Your task to perform on an android device: toggle translation in the chrome app Image 0: 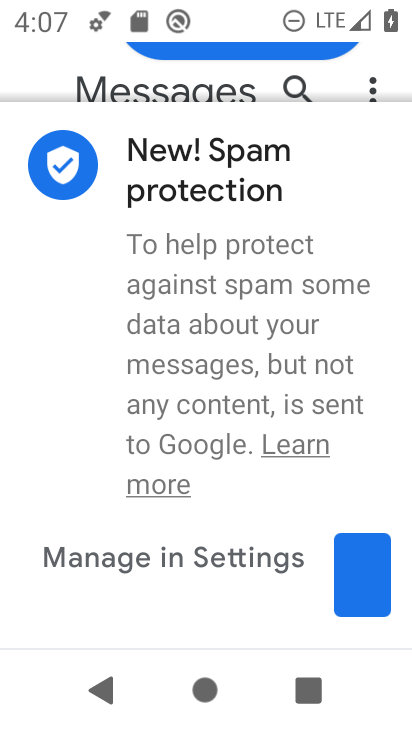
Step 0: press home button
Your task to perform on an android device: toggle translation in the chrome app Image 1: 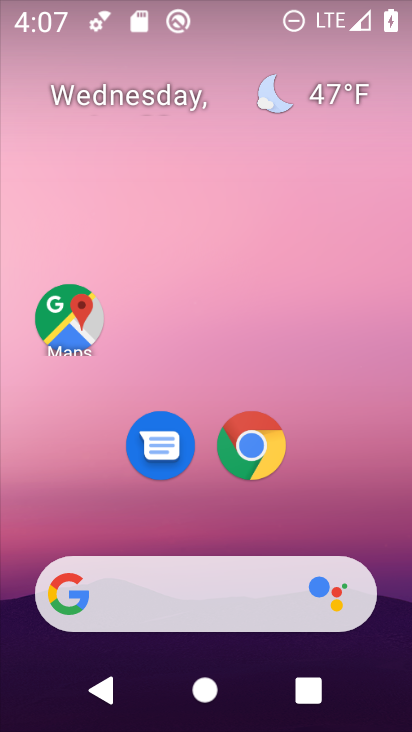
Step 1: click (256, 451)
Your task to perform on an android device: toggle translation in the chrome app Image 2: 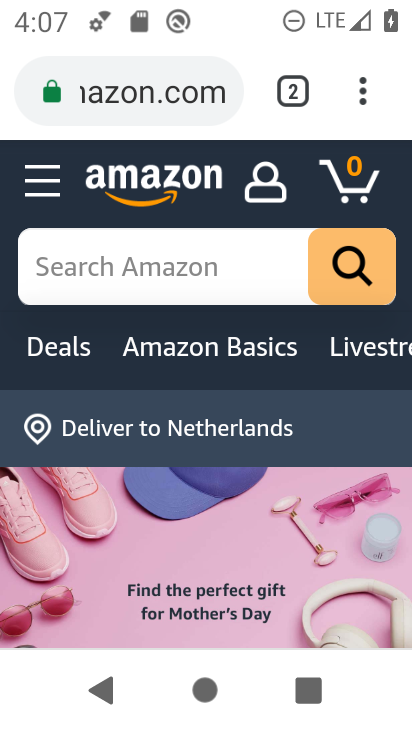
Step 2: click (362, 86)
Your task to perform on an android device: toggle translation in the chrome app Image 3: 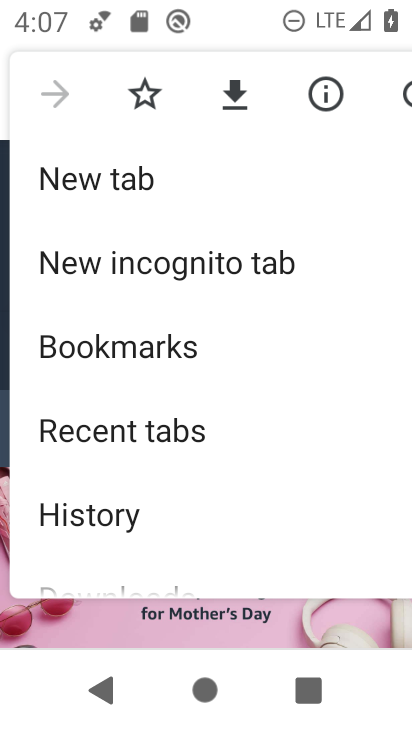
Step 3: drag from (197, 457) to (254, 297)
Your task to perform on an android device: toggle translation in the chrome app Image 4: 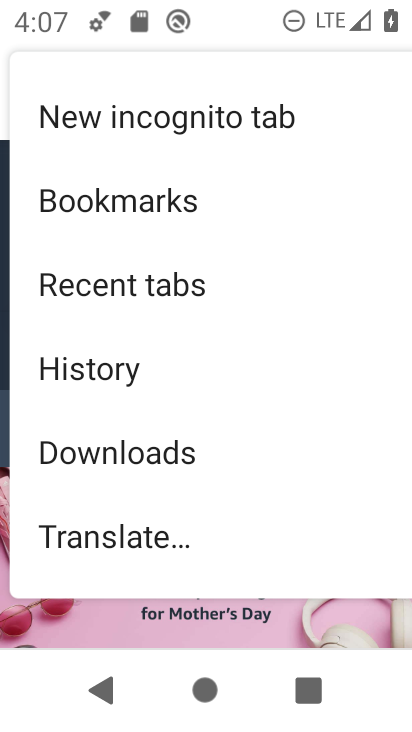
Step 4: drag from (233, 487) to (285, 361)
Your task to perform on an android device: toggle translation in the chrome app Image 5: 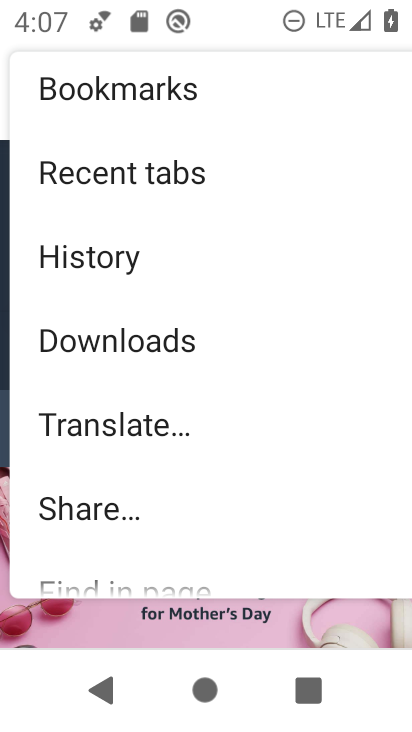
Step 5: drag from (207, 473) to (254, 380)
Your task to perform on an android device: toggle translation in the chrome app Image 6: 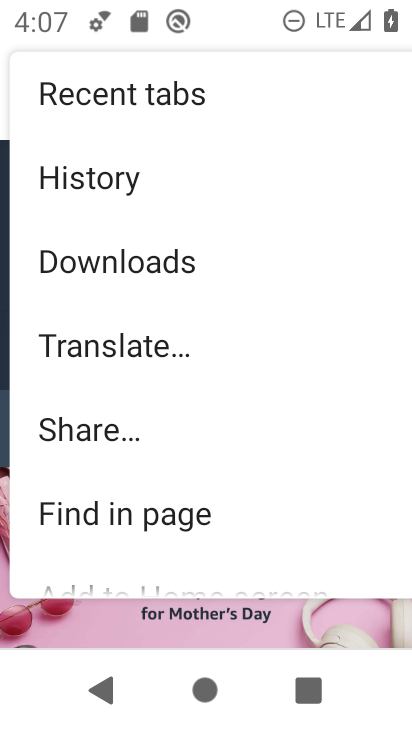
Step 6: drag from (250, 485) to (264, 399)
Your task to perform on an android device: toggle translation in the chrome app Image 7: 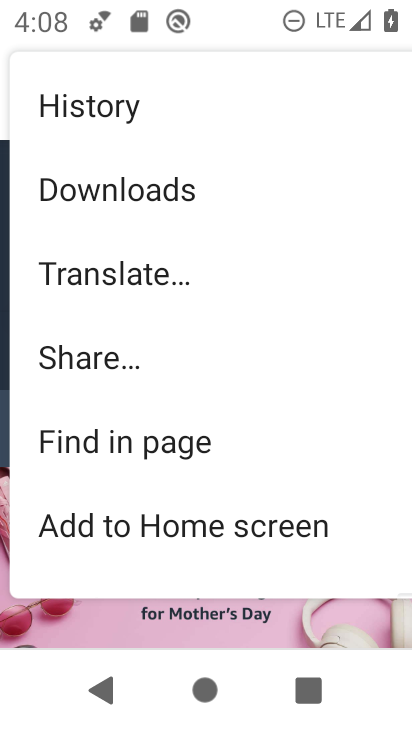
Step 7: drag from (254, 465) to (270, 383)
Your task to perform on an android device: toggle translation in the chrome app Image 8: 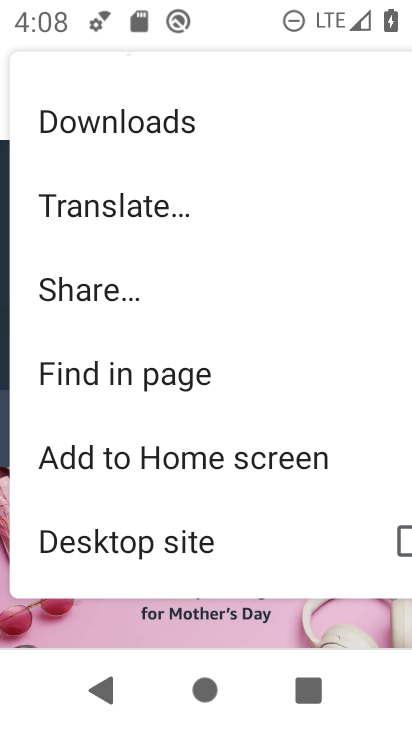
Step 8: drag from (241, 519) to (273, 385)
Your task to perform on an android device: toggle translation in the chrome app Image 9: 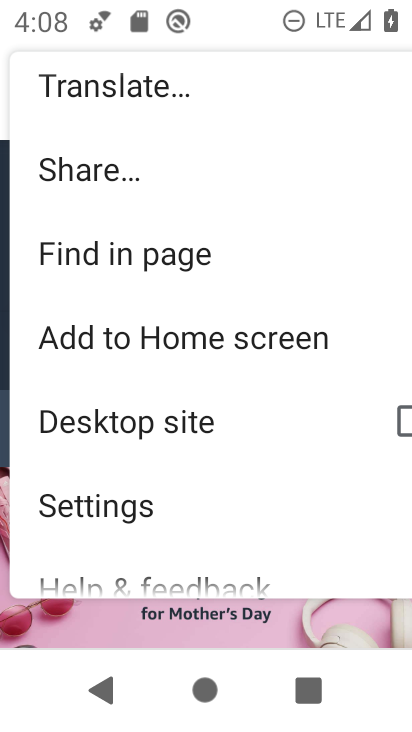
Step 9: drag from (205, 502) to (240, 378)
Your task to perform on an android device: toggle translation in the chrome app Image 10: 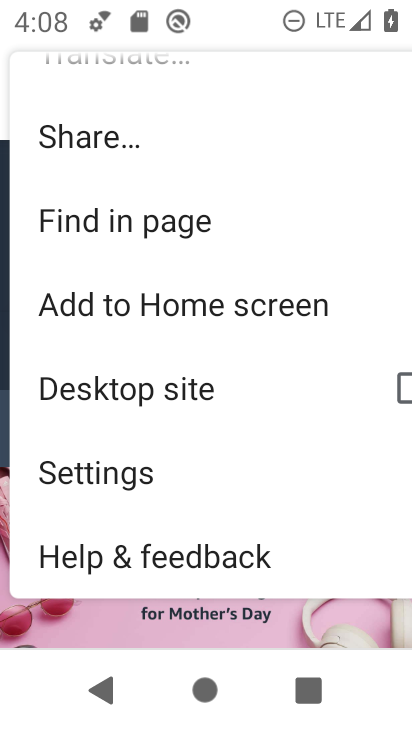
Step 10: click (118, 471)
Your task to perform on an android device: toggle translation in the chrome app Image 11: 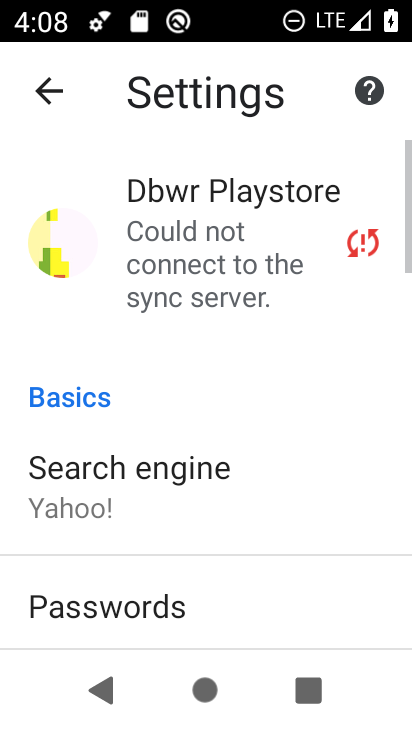
Step 11: drag from (203, 586) to (243, 447)
Your task to perform on an android device: toggle translation in the chrome app Image 12: 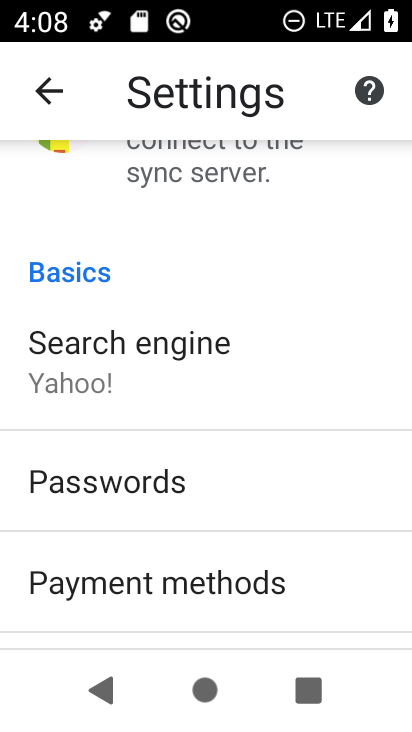
Step 12: drag from (239, 548) to (263, 429)
Your task to perform on an android device: toggle translation in the chrome app Image 13: 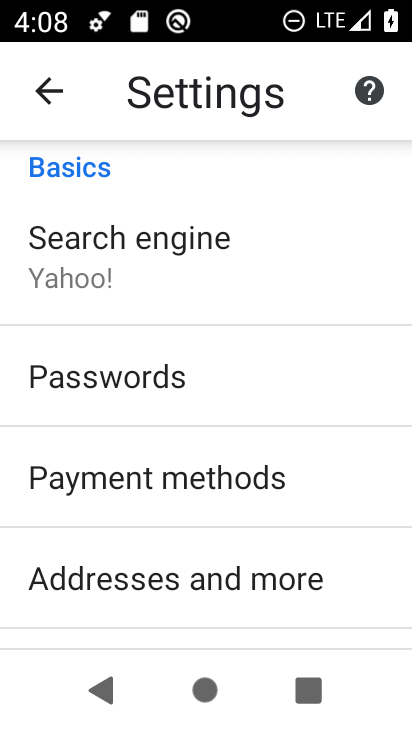
Step 13: click (263, 443)
Your task to perform on an android device: toggle translation in the chrome app Image 14: 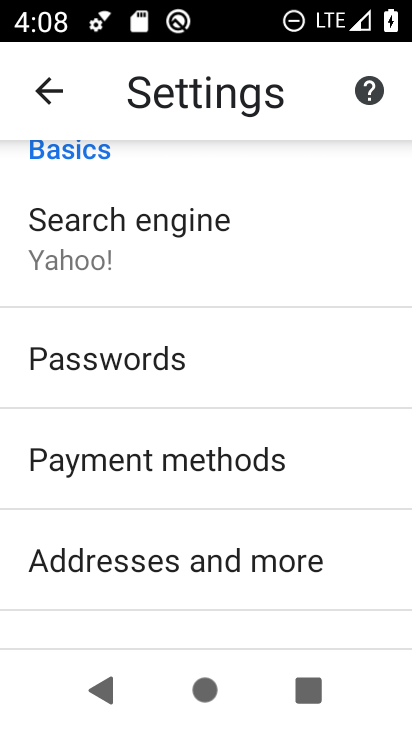
Step 14: drag from (218, 580) to (275, 440)
Your task to perform on an android device: toggle translation in the chrome app Image 15: 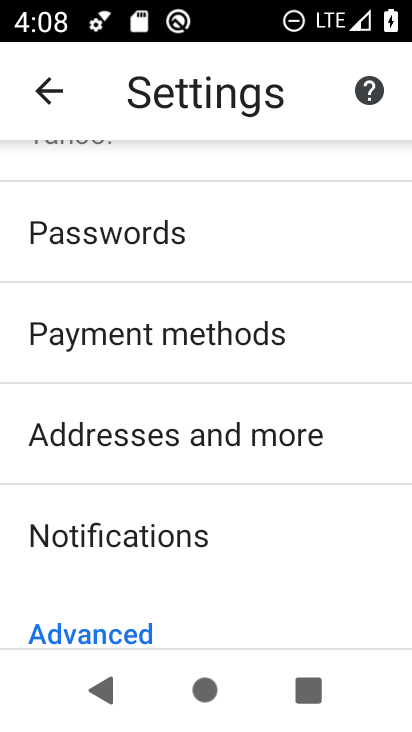
Step 15: drag from (230, 564) to (281, 435)
Your task to perform on an android device: toggle translation in the chrome app Image 16: 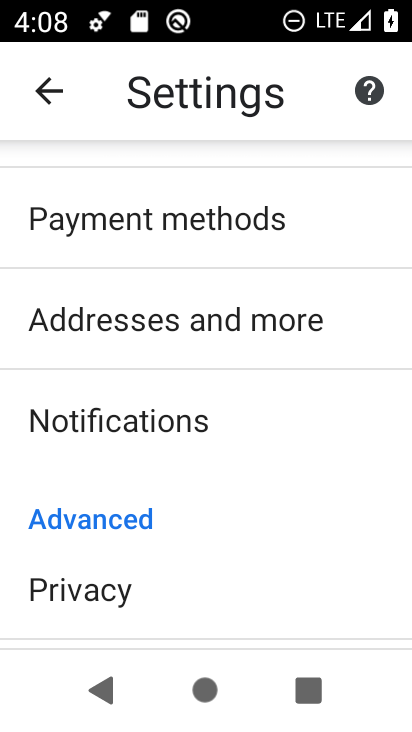
Step 16: drag from (199, 575) to (277, 414)
Your task to perform on an android device: toggle translation in the chrome app Image 17: 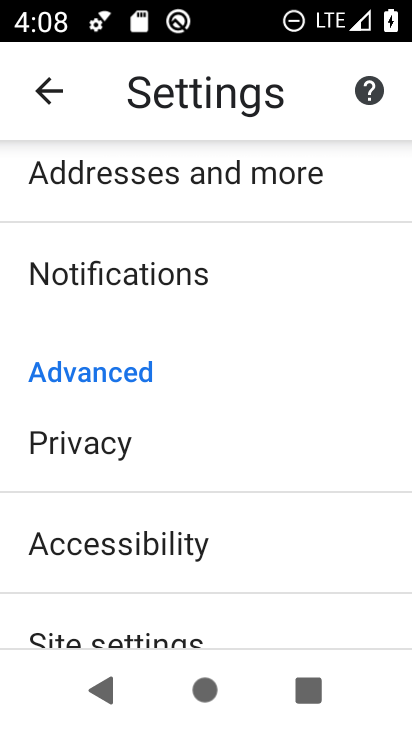
Step 17: drag from (222, 583) to (259, 459)
Your task to perform on an android device: toggle translation in the chrome app Image 18: 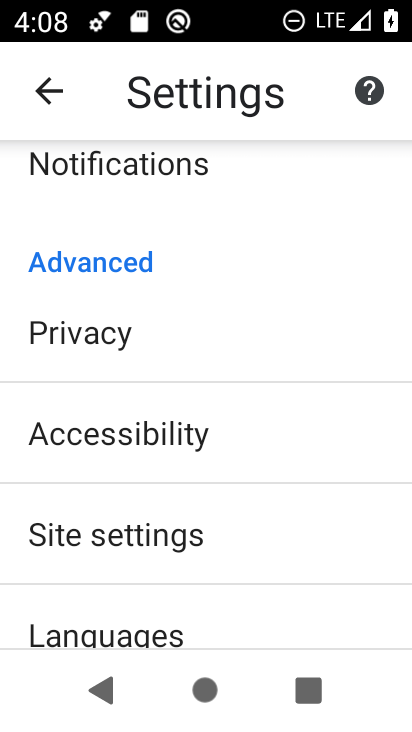
Step 18: drag from (166, 597) to (256, 451)
Your task to perform on an android device: toggle translation in the chrome app Image 19: 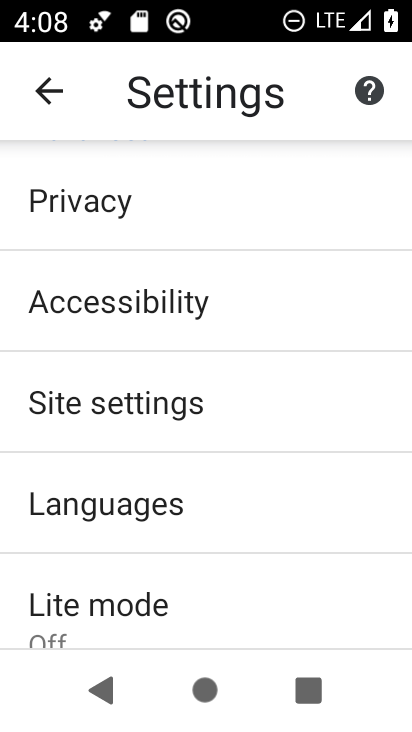
Step 19: click (156, 513)
Your task to perform on an android device: toggle translation in the chrome app Image 20: 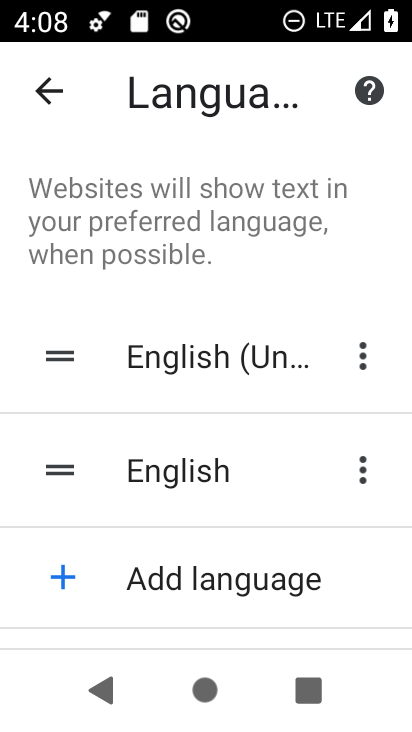
Step 20: drag from (204, 556) to (264, 367)
Your task to perform on an android device: toggle translation in the chrome app Image 21: 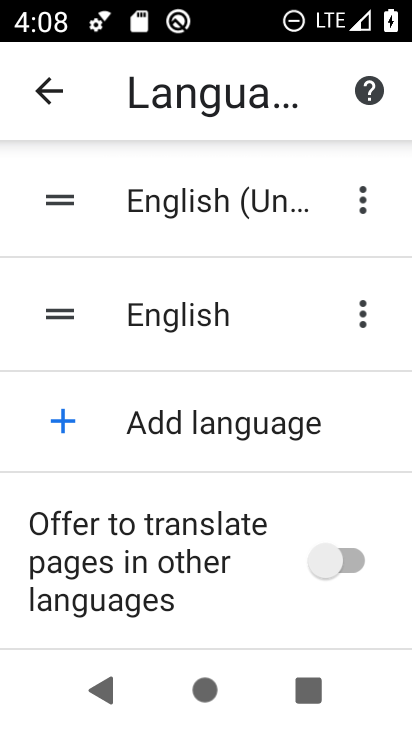
Step 21: click (341, 566)
Your task to perform on an android device: toggle translation in the chrome app Image 22: 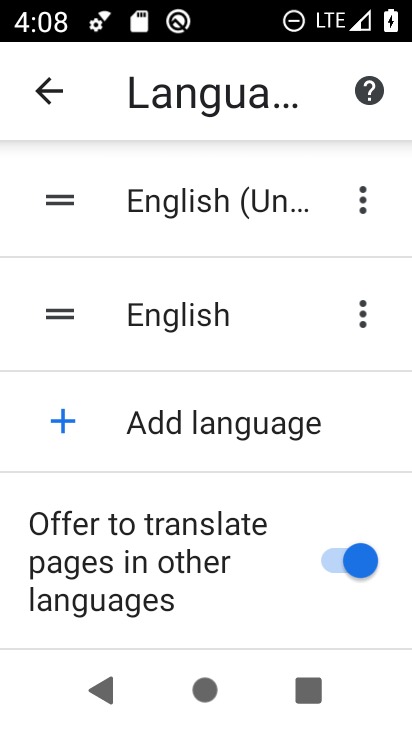
Step 22: task complete